Your task to perform on an android device: open chrome and create a bookmark for the current page Image 0: 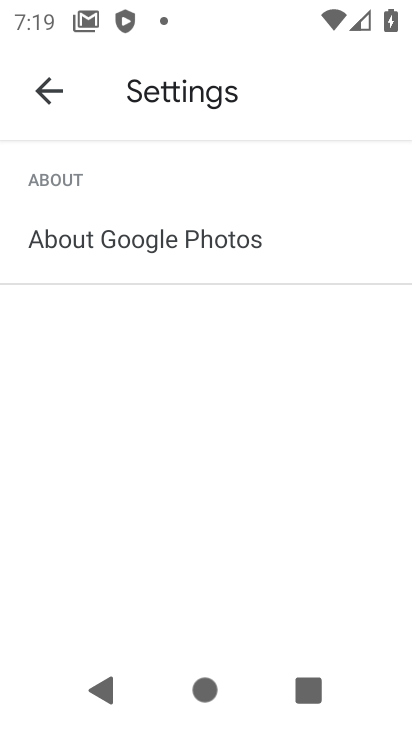
Step 0: press home button
Your task to perform on an android device: open chrome and create a bookmark for the current page Image 1: 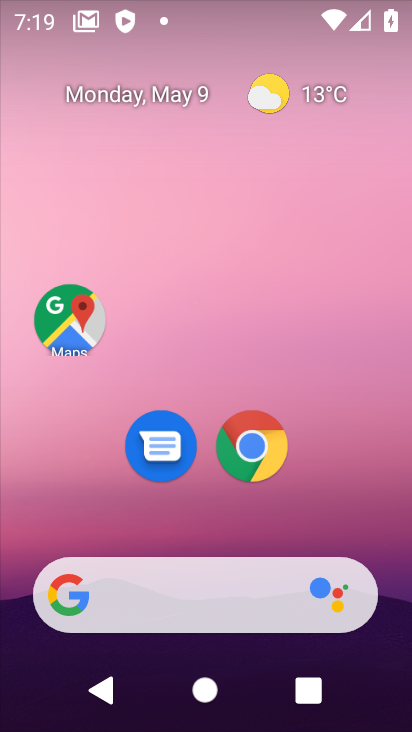
Step 1: click (252, 470)
Your task to perform on an android device: open chrome and create a bookmark for the current page Image 2: 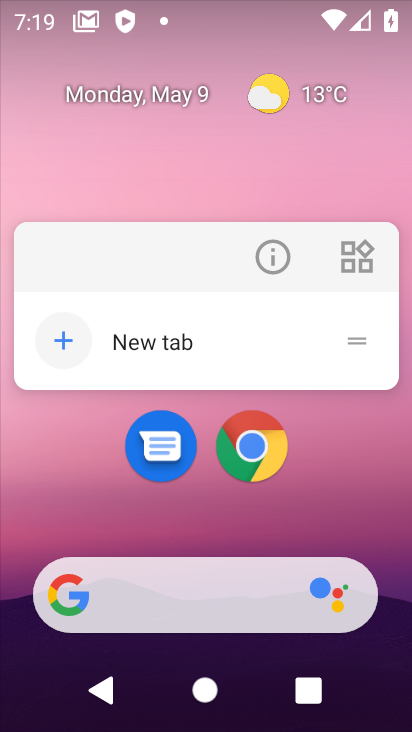
Step 2: click (249, 448)
Your task to perform on an android device: open chrome and create a bookmark for the current page Image 3: 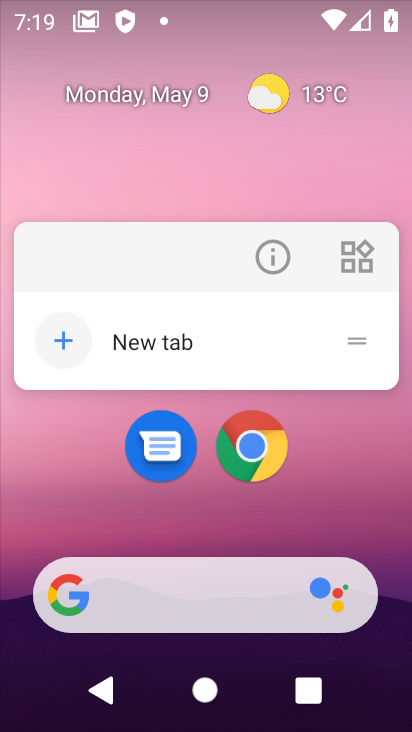
Step 3: click (249, 478)
Your task to perform on an android device: open chrome and create a bookmark for the current page Image 4: 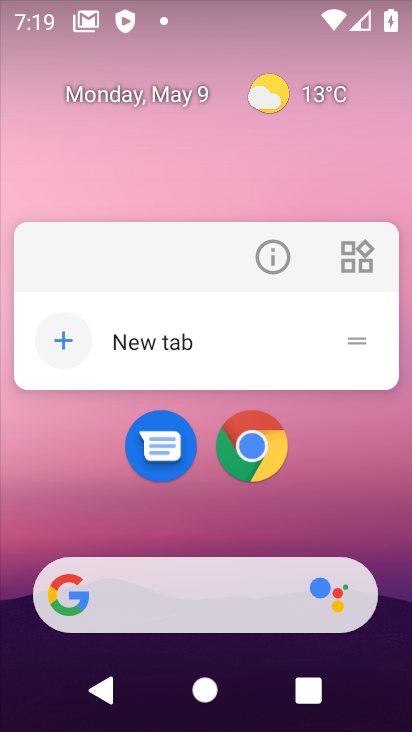
Step 4: click (258, 468)
Your task to perform on an android device: open chrome and create a bookmark for the current page Image 5: 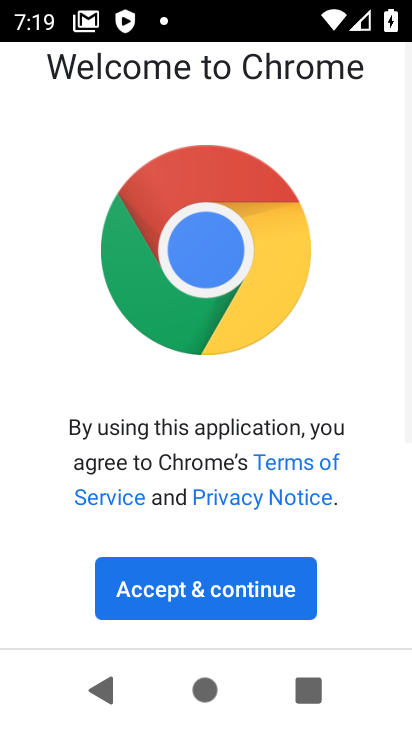
Step 5: click (255, 586)
Your task to perform on an android device: open chrome and create a bookmark for the current page Image 6: 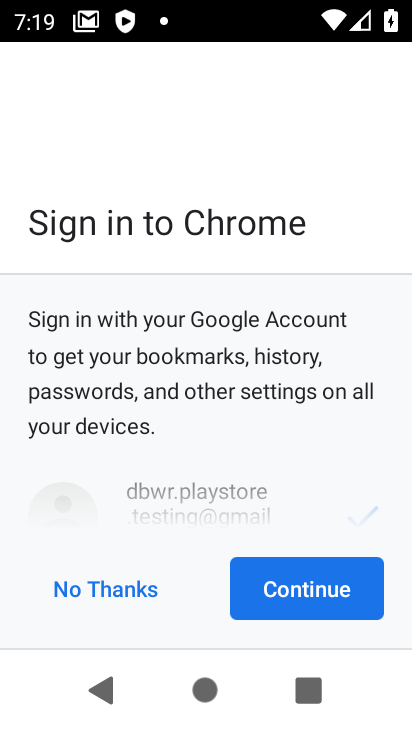
Step 6: click (279, 599)
Your task to perform on an android device: open chrome and create a bookmark for the current page Image 7: 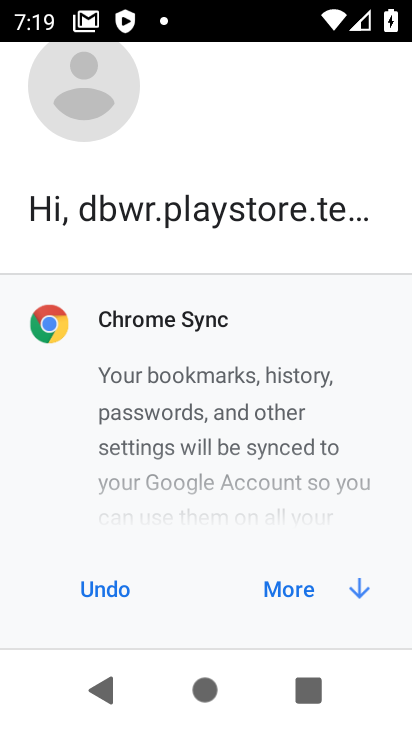
Step 7: click (282, 598)
Your task to perform on an android device: open chrome and create a bookmark for the current page Image 8: 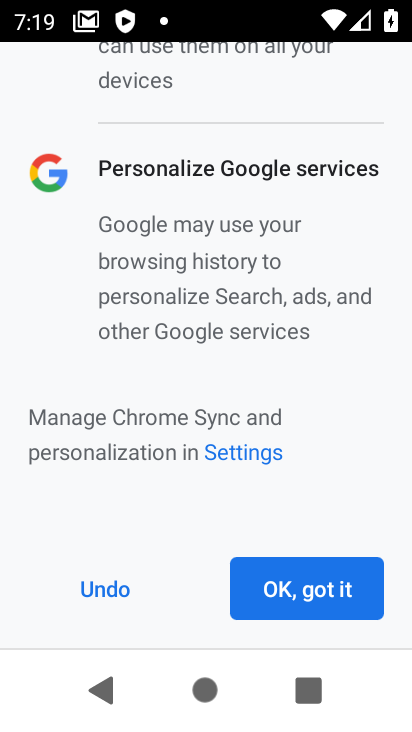
Step 8: click (284, 590)
Your task to perform on an android device: open chrome and create a bookmark for the current page Image 9: 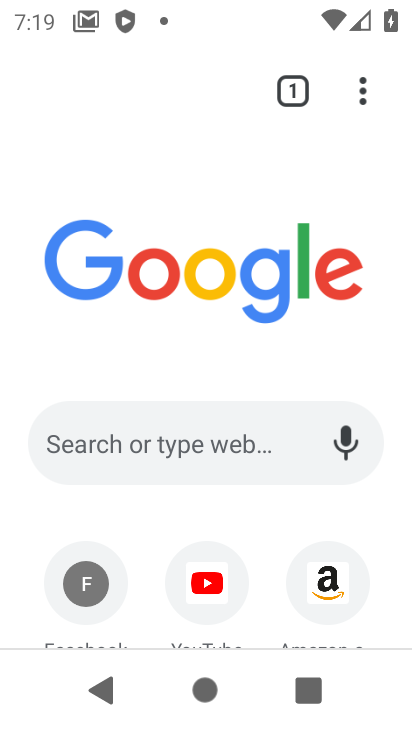
Step 9: task complete